Your task to perform on an android device: toggle priority inbox in the gmail app Image 0: 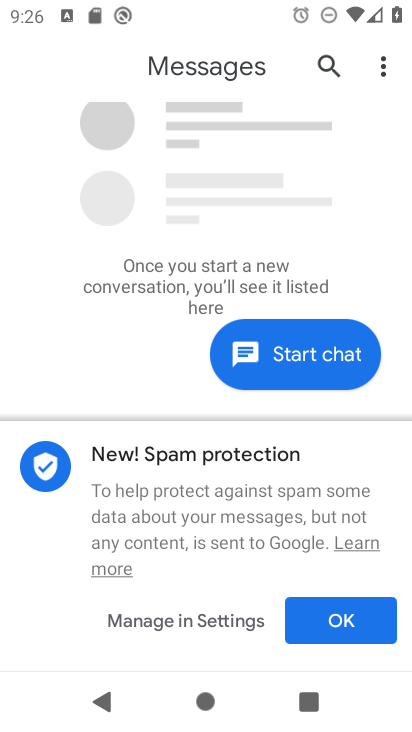
Step 0: press home button
Your task to perform on an android device: toggle priority inbox in the gmail app Image 1: 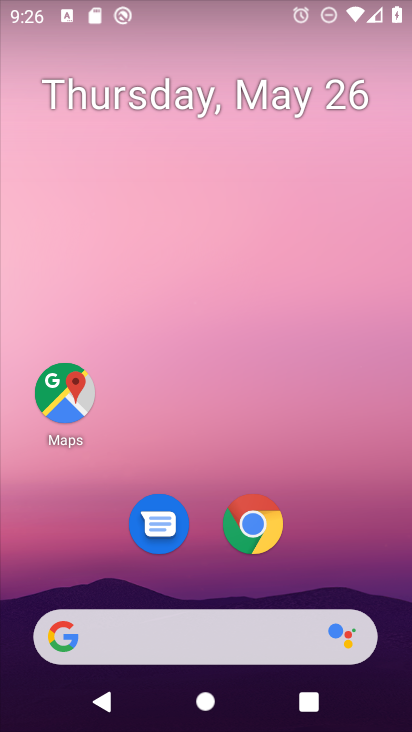
Step 1: drag from (345, 501) to (335, 58)
Your task to perform on an android device: toggle priority inbox in the gmail app Image 2: 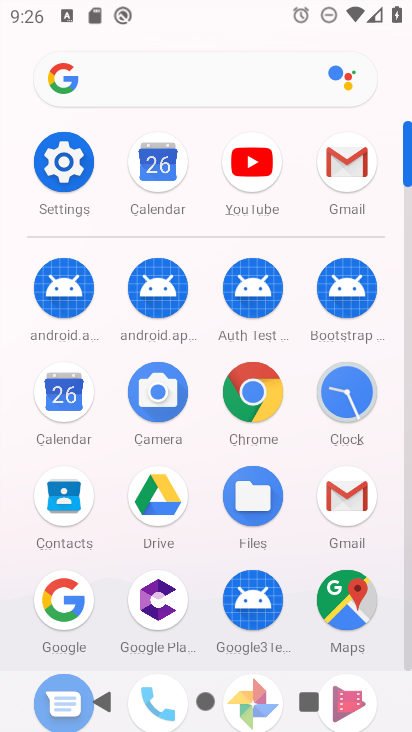
Step 2: click (348, 148)
Your task to perform on an android device: toggle priority inbox in the gmail app Image 3: 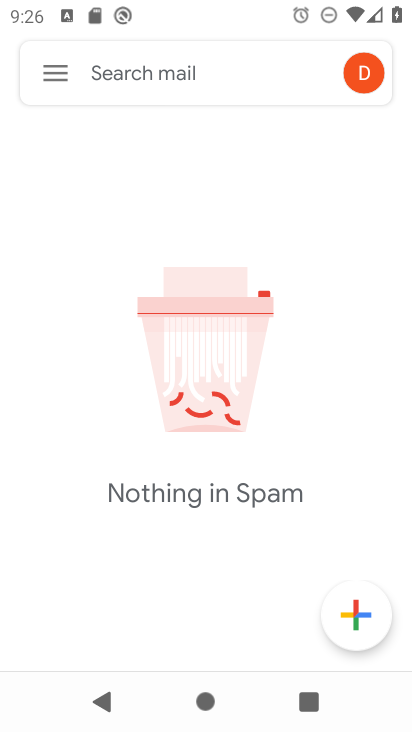
Step 3: click (56, 74)
Your task to perform on an android device: toggle priority inbox in the gmail app Image 4: 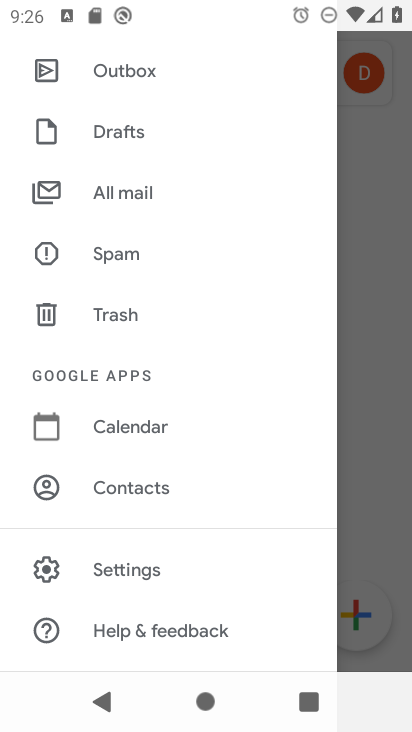
Step 4: click (166, 556)
Your task to perform on an android device: toggle priority inbox in the gmail app Image 5: 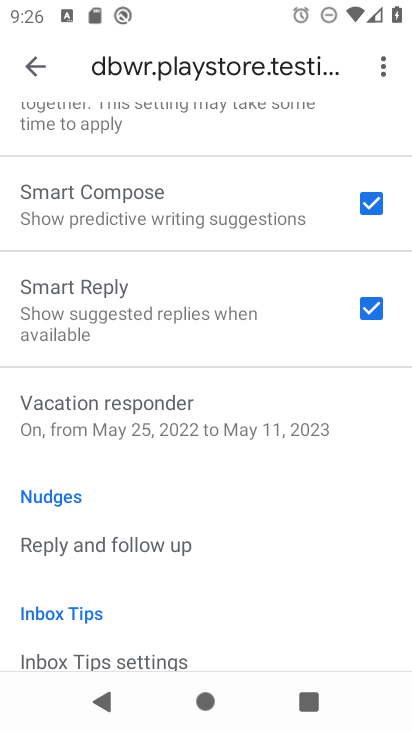
Step 5: drag from (238, 545) to (241, 601)
Your task to perform on an android device: toggle priority inbox in the gmail app Image 6: 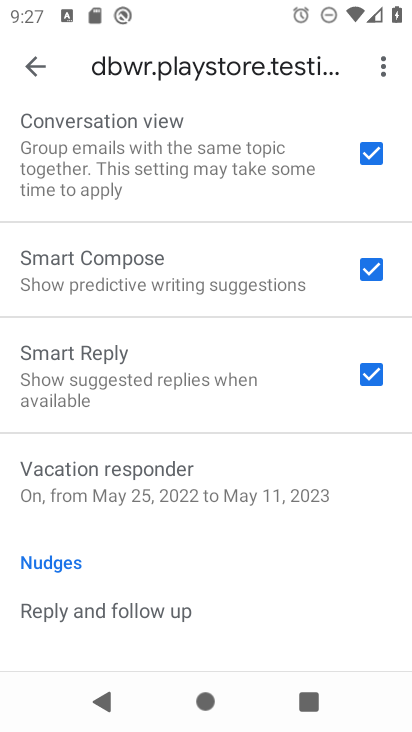
Step 6: drag from (177, 191) to (200, 596)
Your task to perform on an android device: toggle priority inbox in the gmail app Image 7: 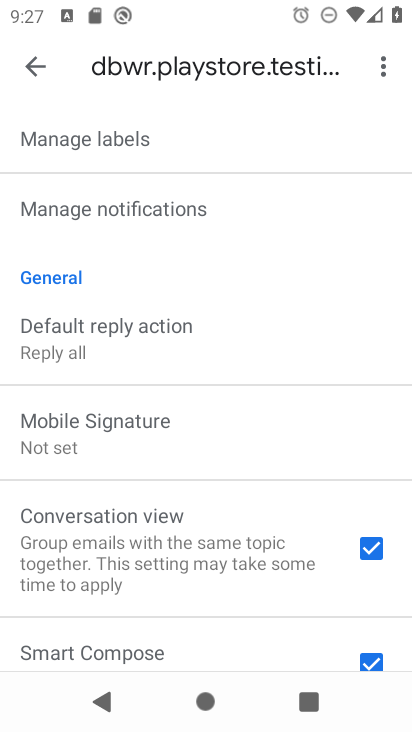
Step 7: drag from (237, 280) to (232, 550)
Your task to perform on an android device: toggle priority inbox in the gmail app Image 8: 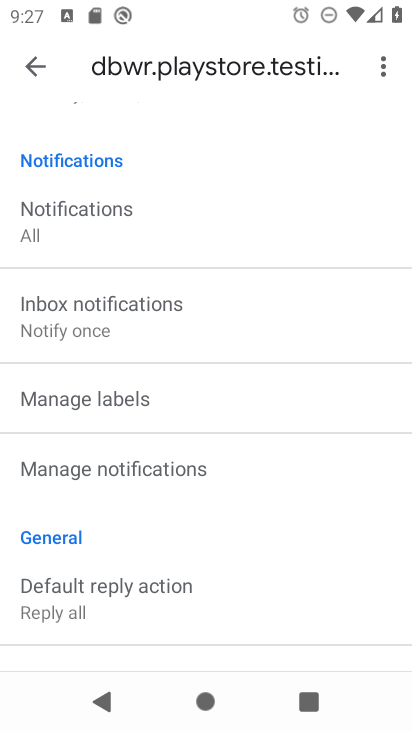
Step 8: drag from (225, 206) to (212, 582)
Your task to perform on an android device: toggle priority inbox in the gmail app Image 9: 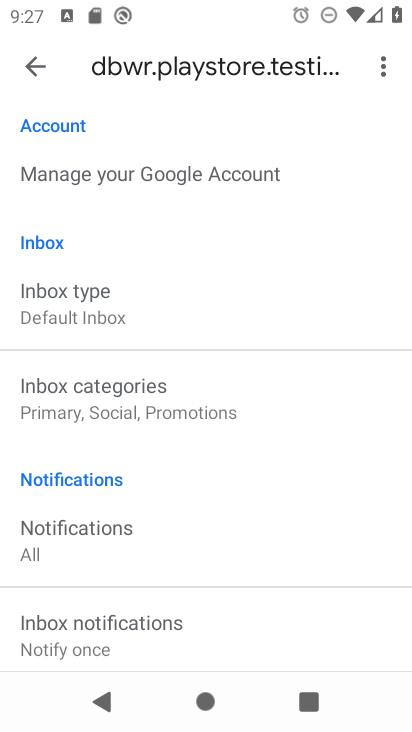
Step 9: click (98, 300)
Your task to perform on an android device: toggle priority inbox in the gmail app Image 10: 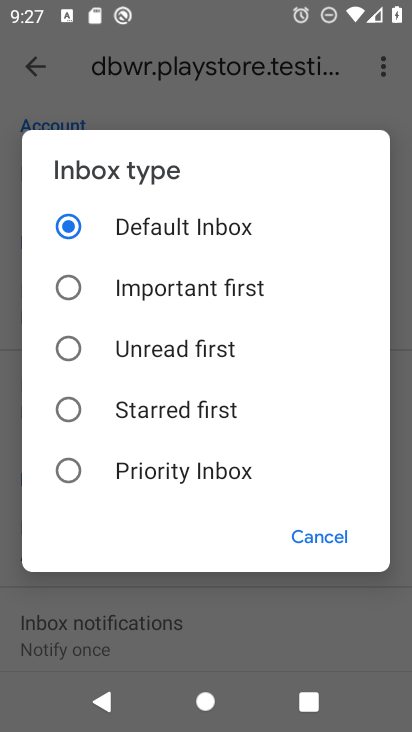
Step 10: click (67, 460)
Your task to perform on an android device: toggle priority inbox in the gmail app Image 11: 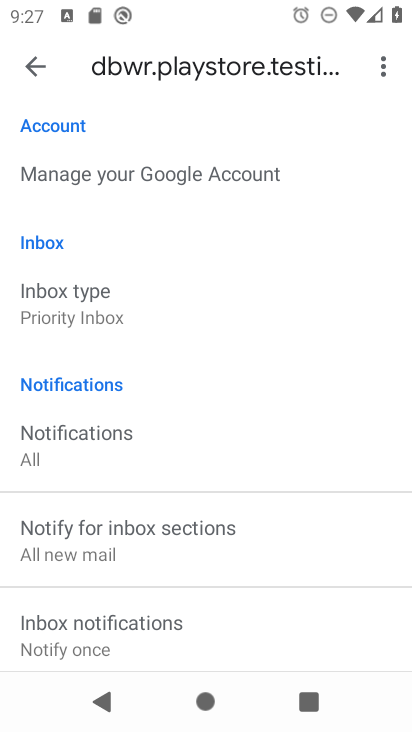
Step 11: task complete